Your task to perform on an android device: change notification settings in the gmail app Image 0: 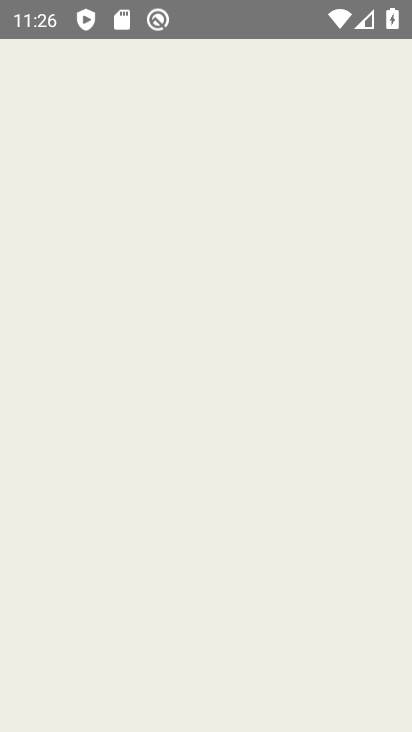
Step 0: click (170, 12)
Your task to perform on an android device: change notification settings in the gmail app Image 1: 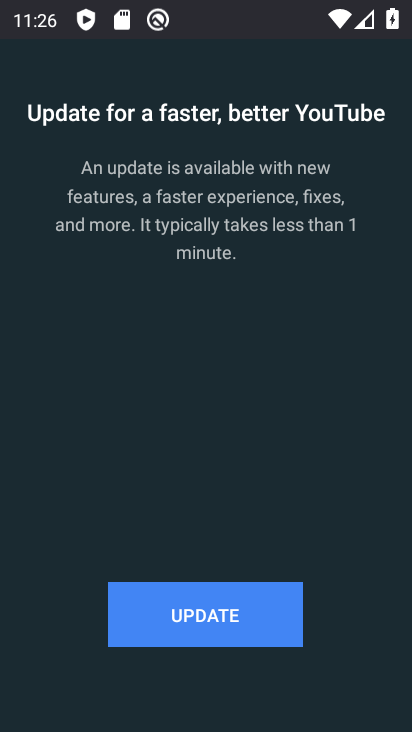
Step 1: press home button
Your task to perform on an android device: change notification settings in the gmail app Image 2: 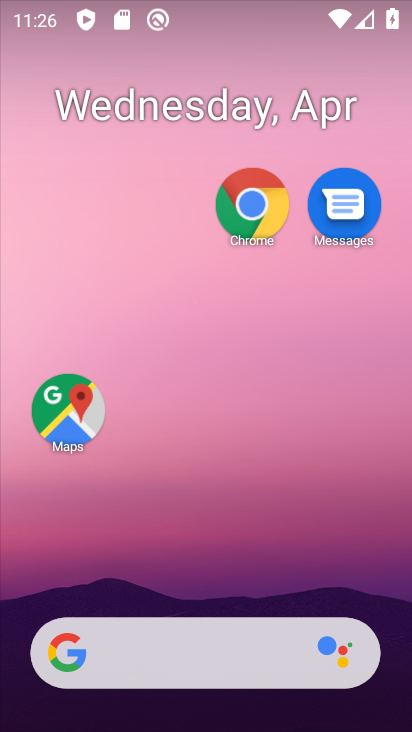
Step 2: drag from (189, 491) to (411, 67)
Your task to perform on an android device: change notification settings in the gmail app Image 3: 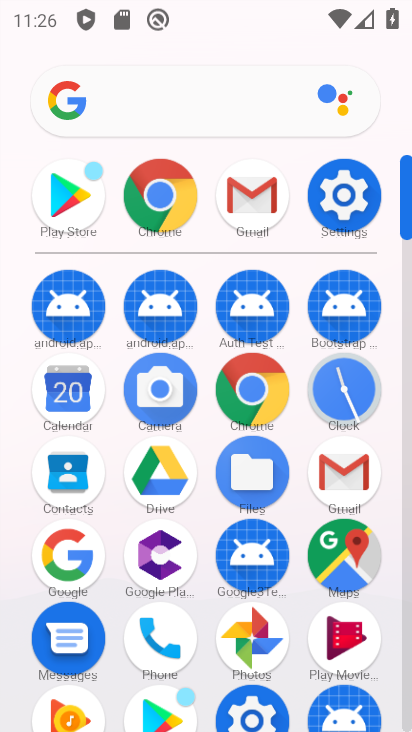
Step 3: click (334, 479)
Your task to perform on an android device: change notification settings in the gmail app Image 4: 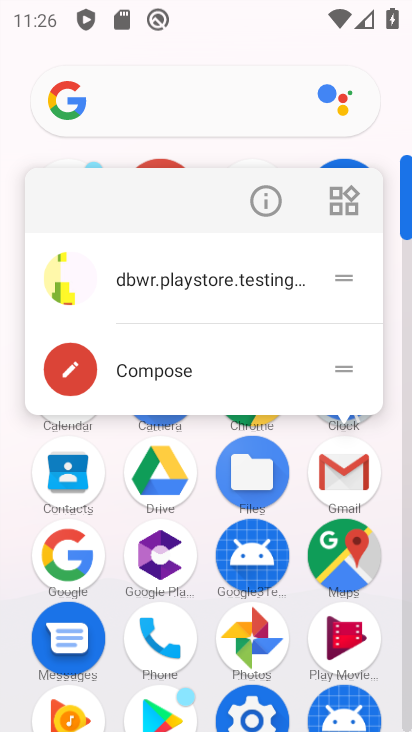
Step 4: click (365, 471)
Your task to perform on an android device: change notification settings in the gmail app Image 5: 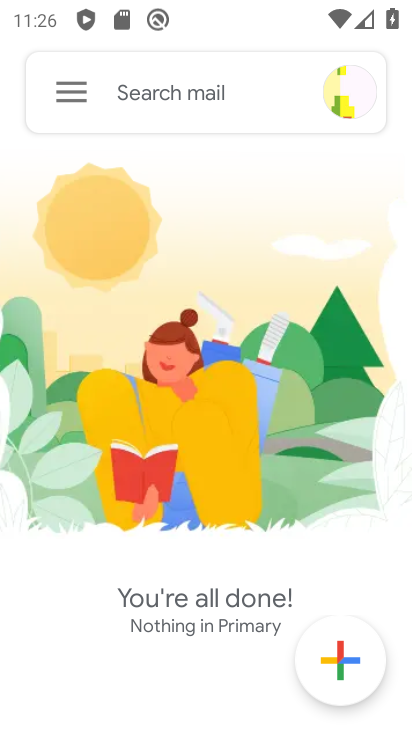
Step 5: click (65, 104)
Your task to perform on an android device: change notification settings in the gmail app Image 6: 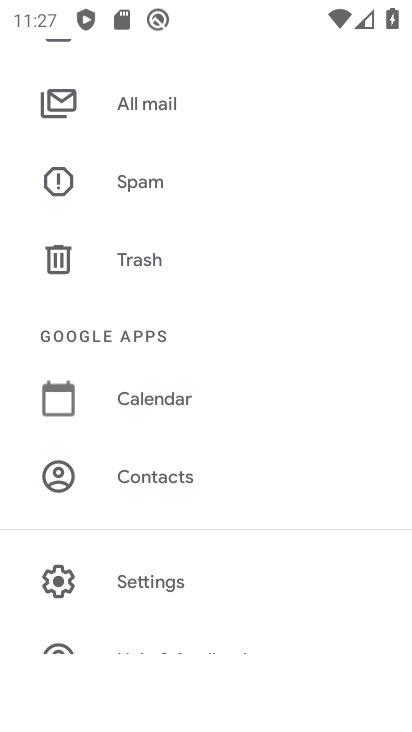
Step 6: click (145, 564)
Your task to perform on an android device: change notification settings in the gmail app Image 7: 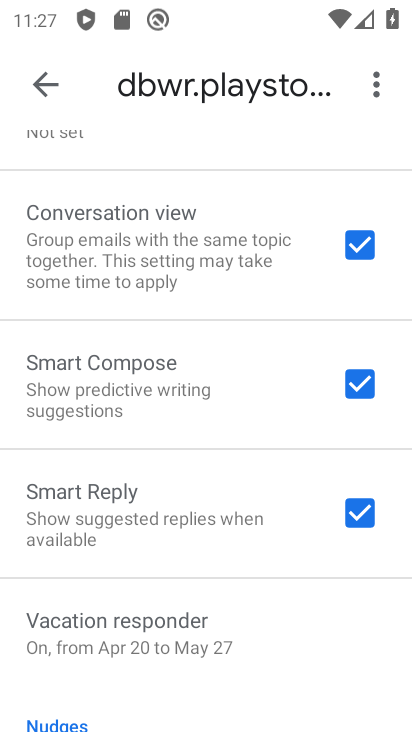
Step 7: drag from (197, 624) to (169, 275)
Your task to perform on an android device: change notification settings in the gmail app Image 8: 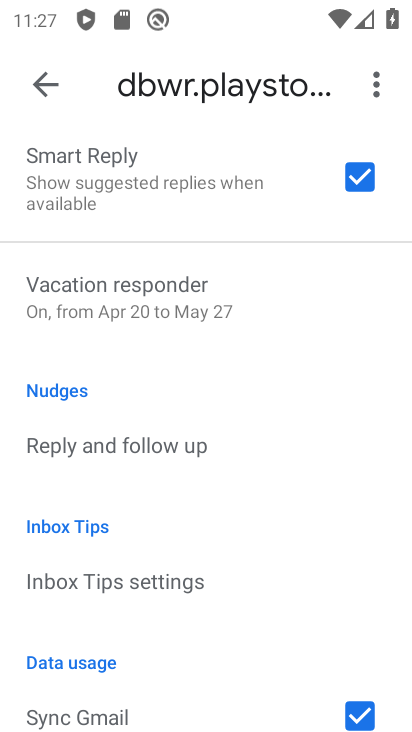
Step 8: click (43, 97)
Your task to perform on an android device: change notification settings in the gmail app Image 9: 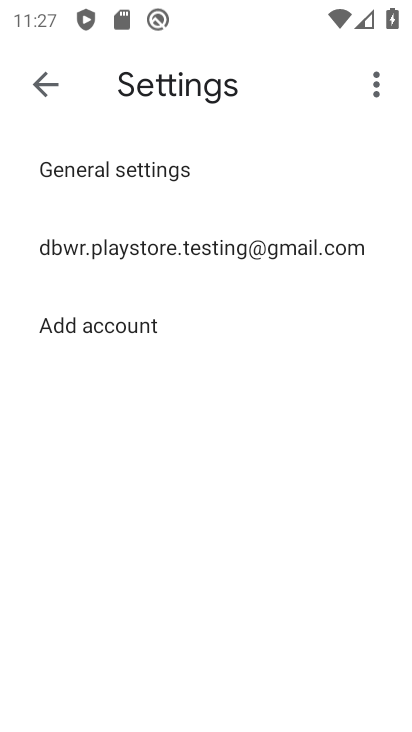
Step 9: click (102, 163)
Your task to perform on an android device: change notification settings in the gmail app Image 10: 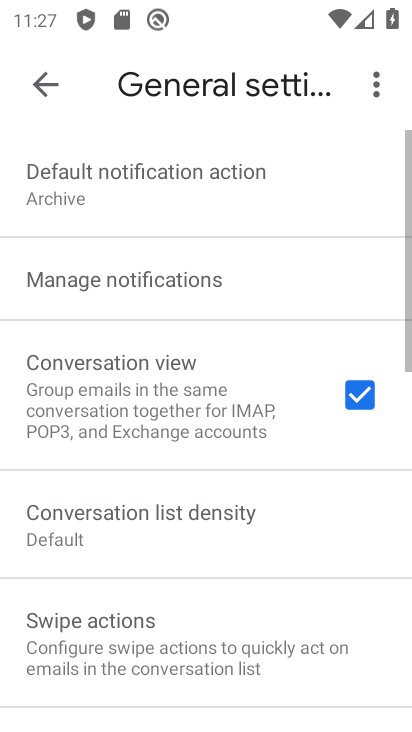
Step 10: click (162, 268)
Your task to perform on an android device: change notification settings in the gmail app Image 11: 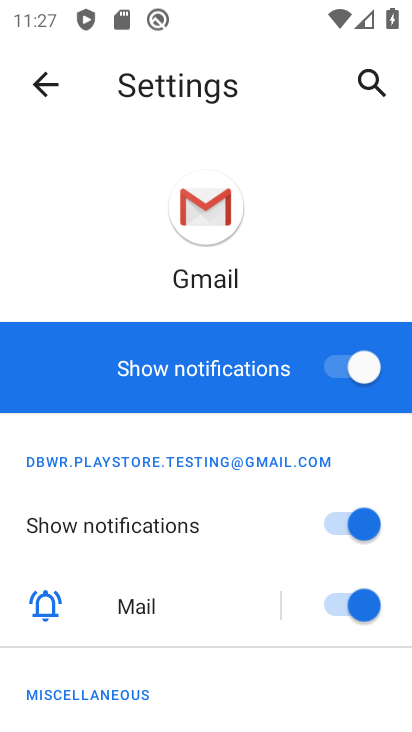
Step 11: click (325, 361)
Your task to perform on an android device: change notification settings in the gmail app Image 12: 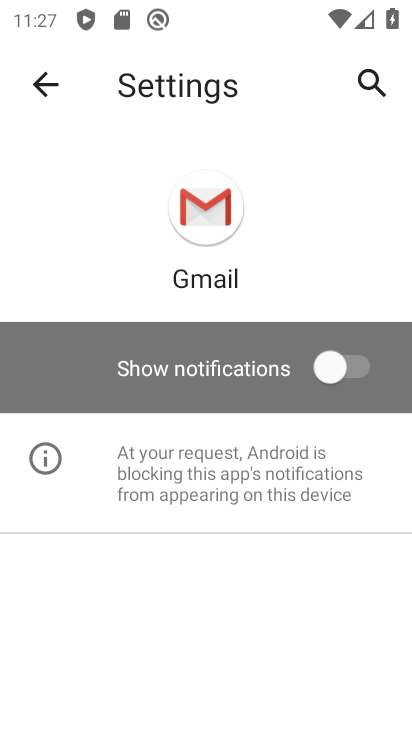
Step 12: task complete